Your task to perform on an android device: find which apps use the phone's location Image 0: 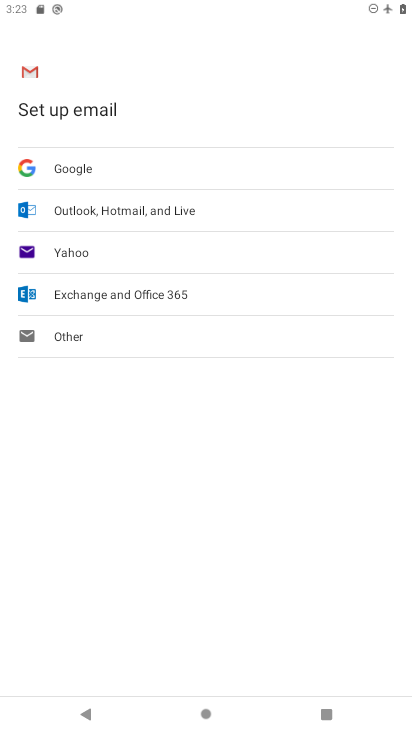
Step 0: press home button
Your task to perform on an android device: find which apps use the phone's location Image 1: 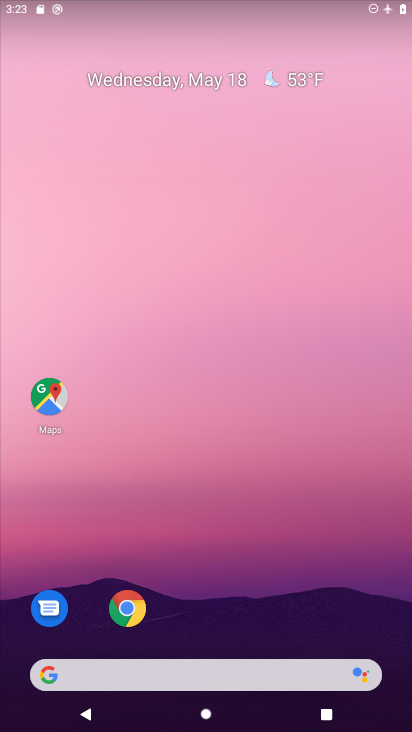
Step 1: drag from (143, 665) to (122, 292)
Your task to perform on an android device: find which apps use the phone's location Image 2: 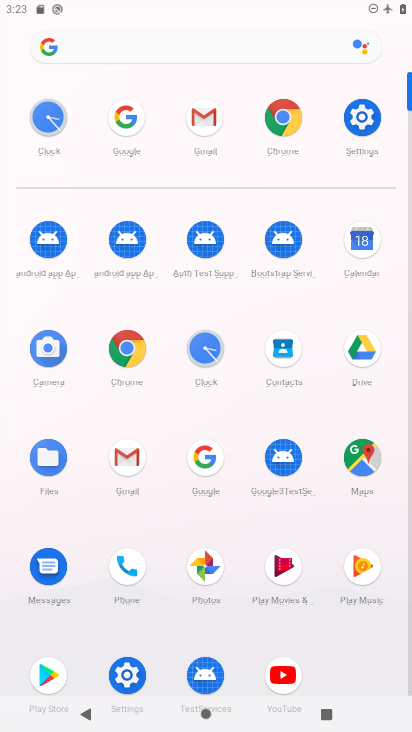
Step 2: click (366, 118)
Your task to perform on an android device: find which apps use the phone's location Image 3: 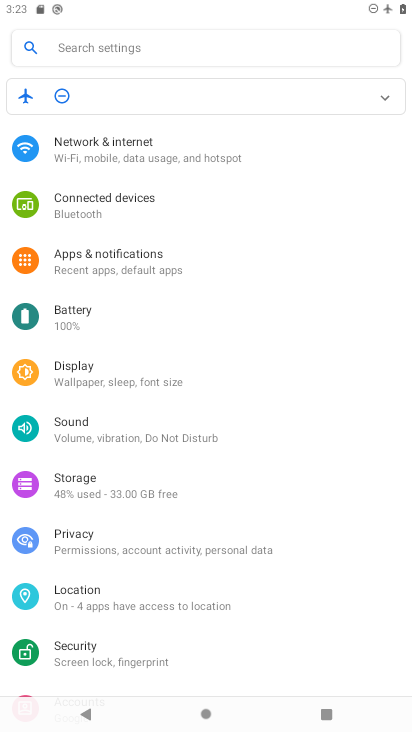
Step 3: click (94, 606)
Your task to perform on an android device: find which apps use the phone's location Image 4: 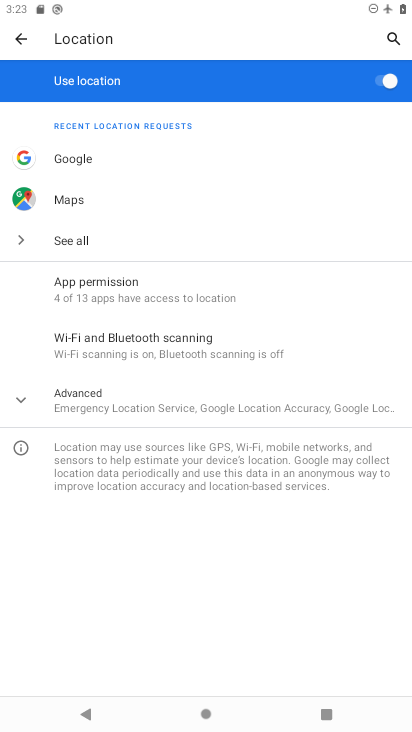
Step 4: click (72, 392)
Your task to perform on an android device: find which apps use the phone's location Image 5: 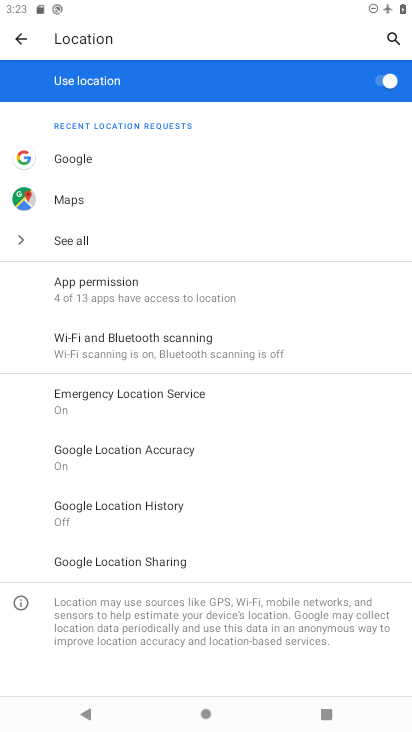
Step 5: click (75, 282)
Your task to perform on an android device: find which apps use the phone's location Image 6: 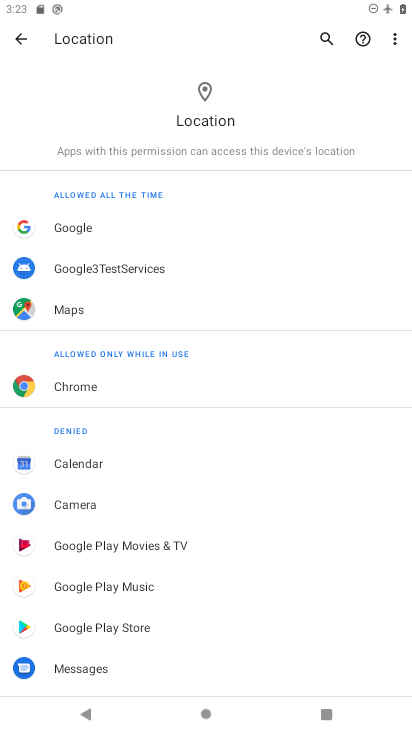
Step 6: task complete